Your task to perform on an android device: What is the news today? Image 0: 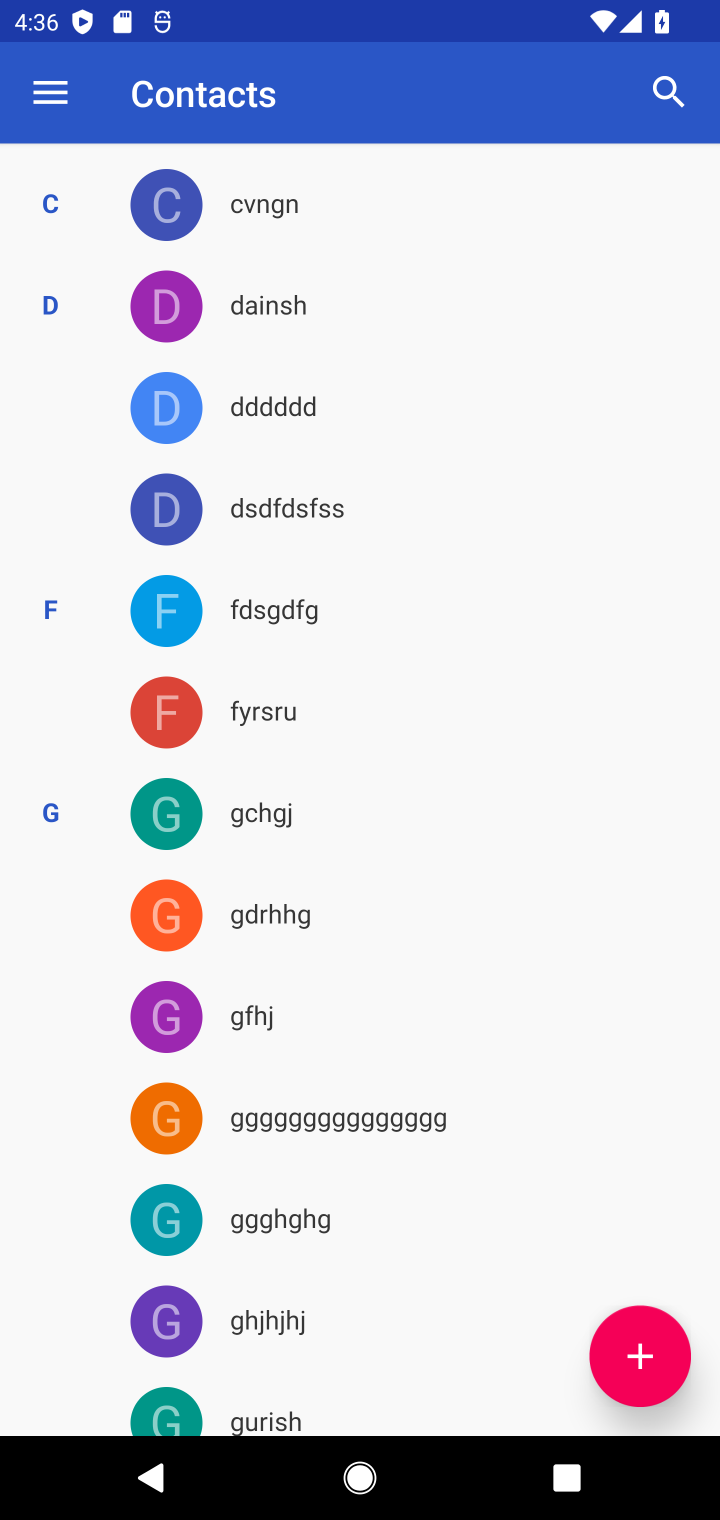
Step 0: press home button
Your task to perform on an android device: What is the news today? Image 1: 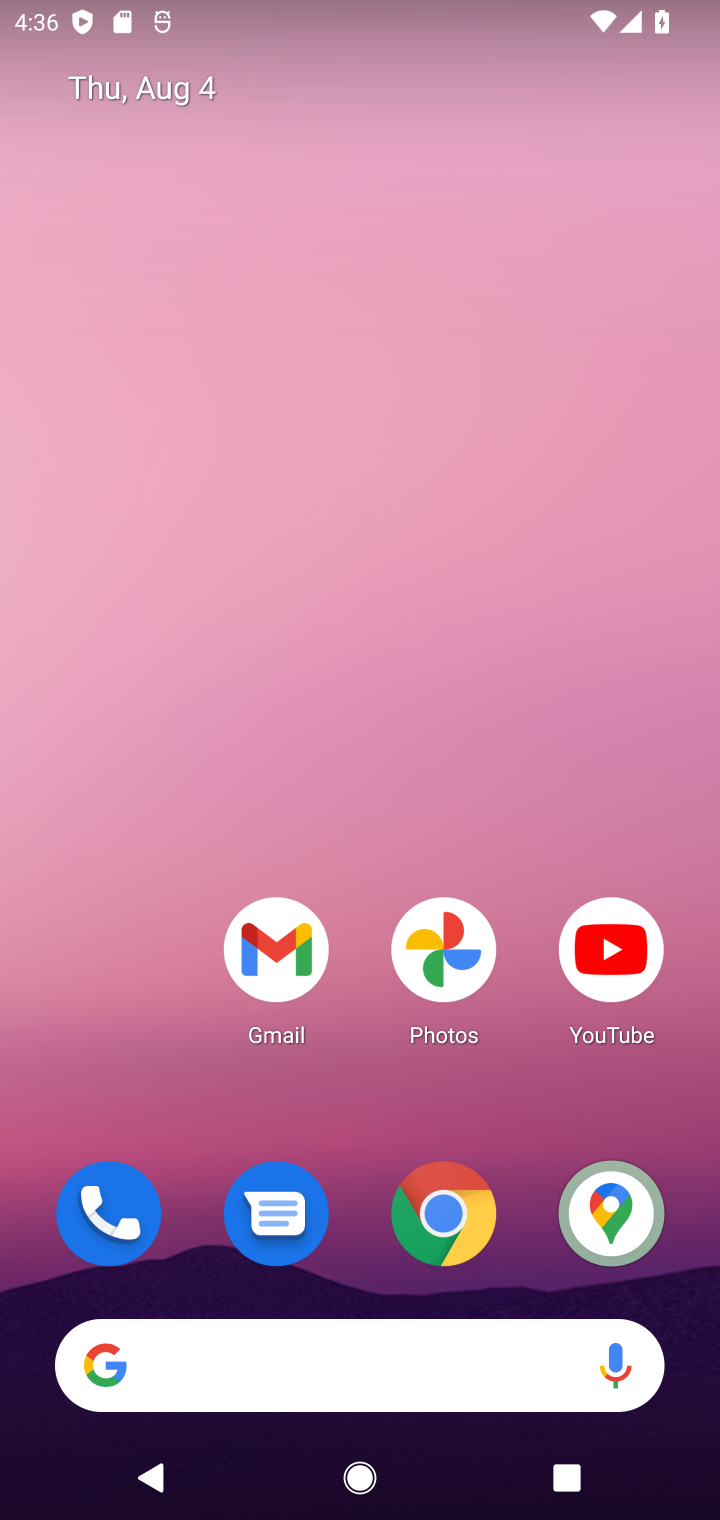
Step 1: drag from (306, 1374) to (371, 299)
Your task to perform on an android device: What is the news today? Image 2: 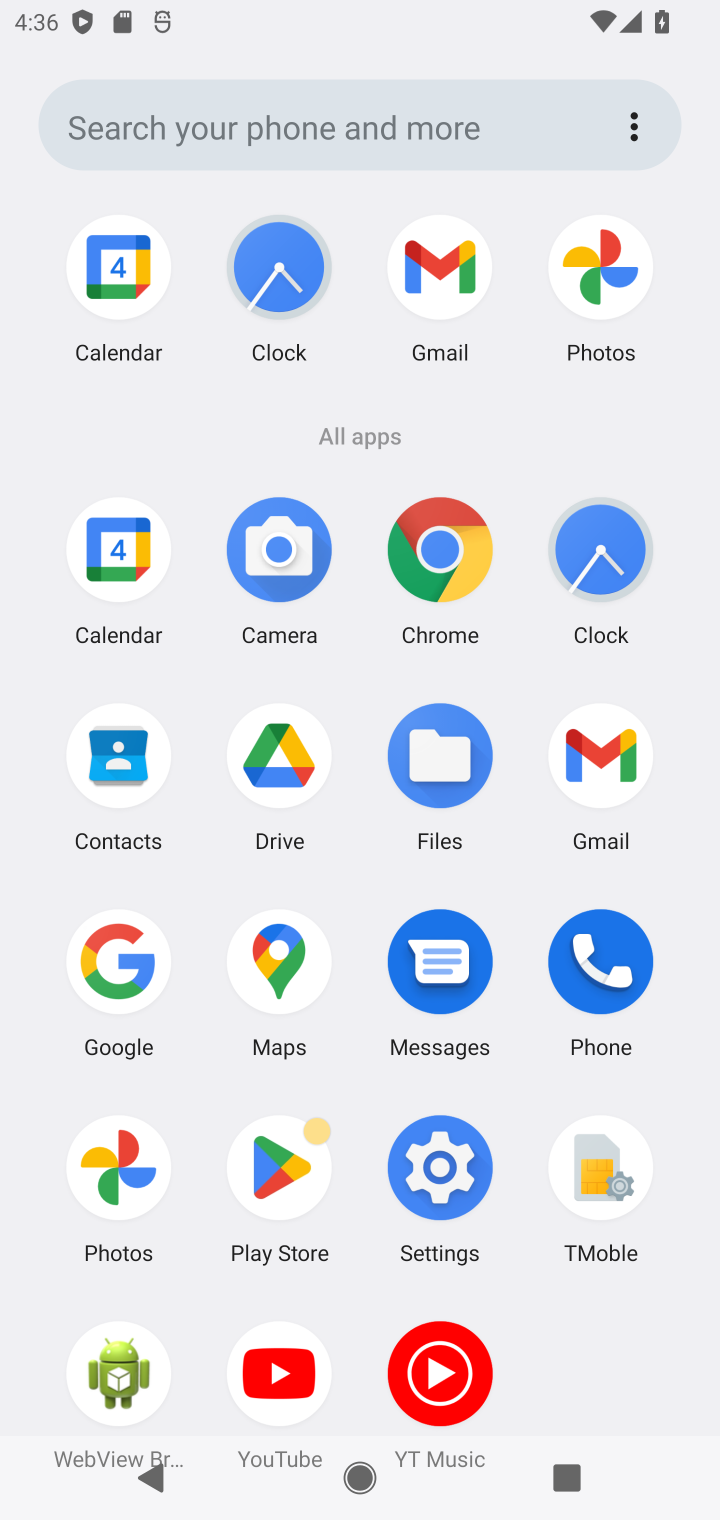
Step 2: click (105, 967)
Your task to perform on an android device: What is the news today? Image 3: 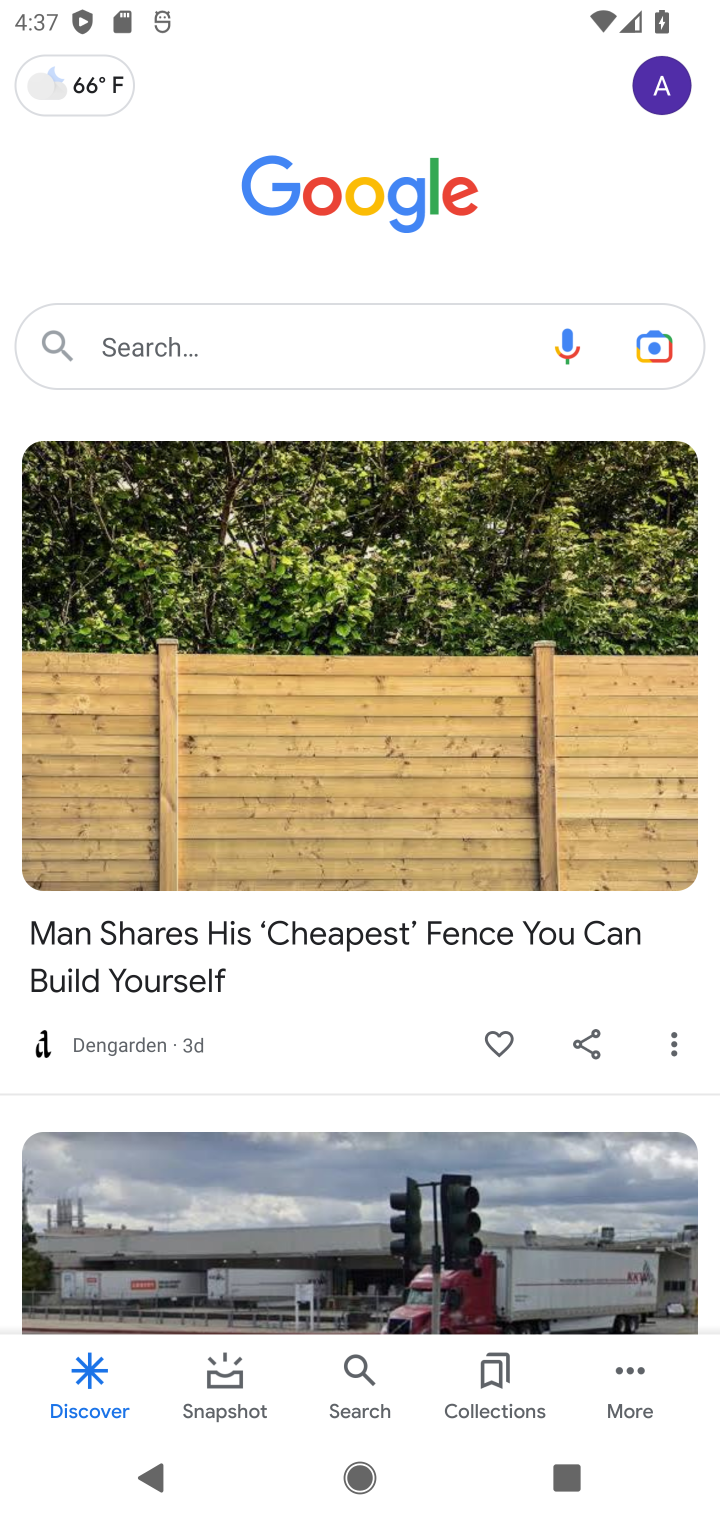
Step 3: click (256, 334)
Your task to perform on an android device: What is the news today? Image 4: 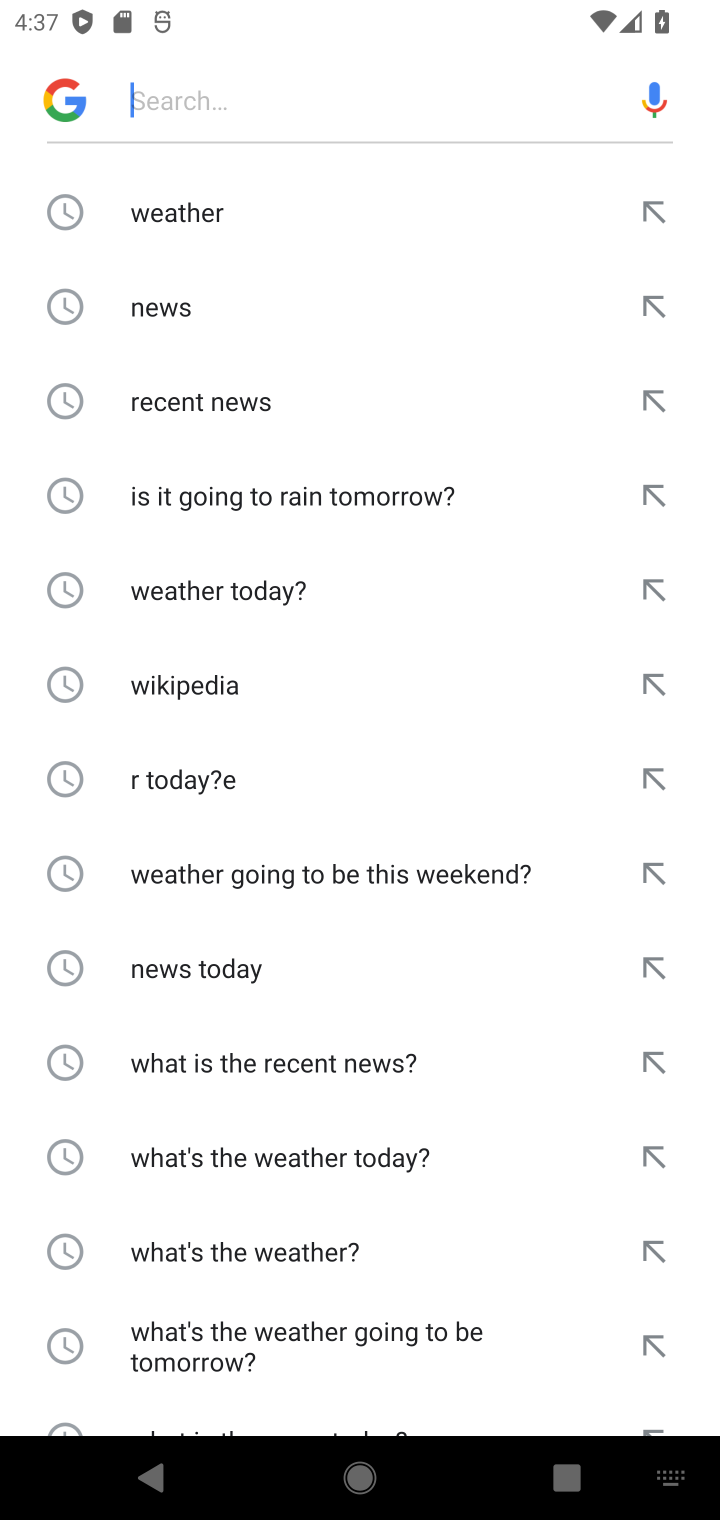
Step 4: type "news today"
Your task to perform on an android device: What is the news today? Image 5: 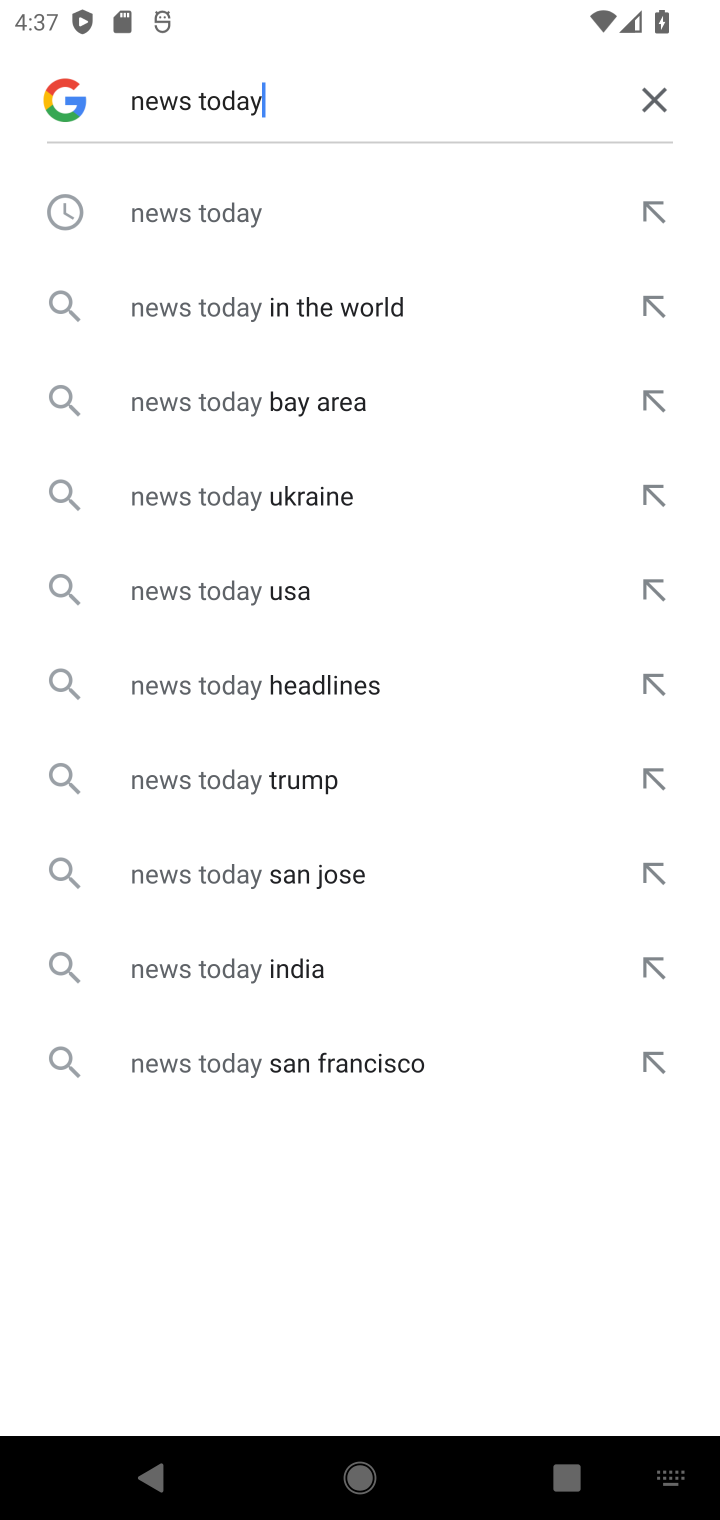
Step 5: click (255, 218)
Your task to perform on an android device: What is the news today? Image 6: 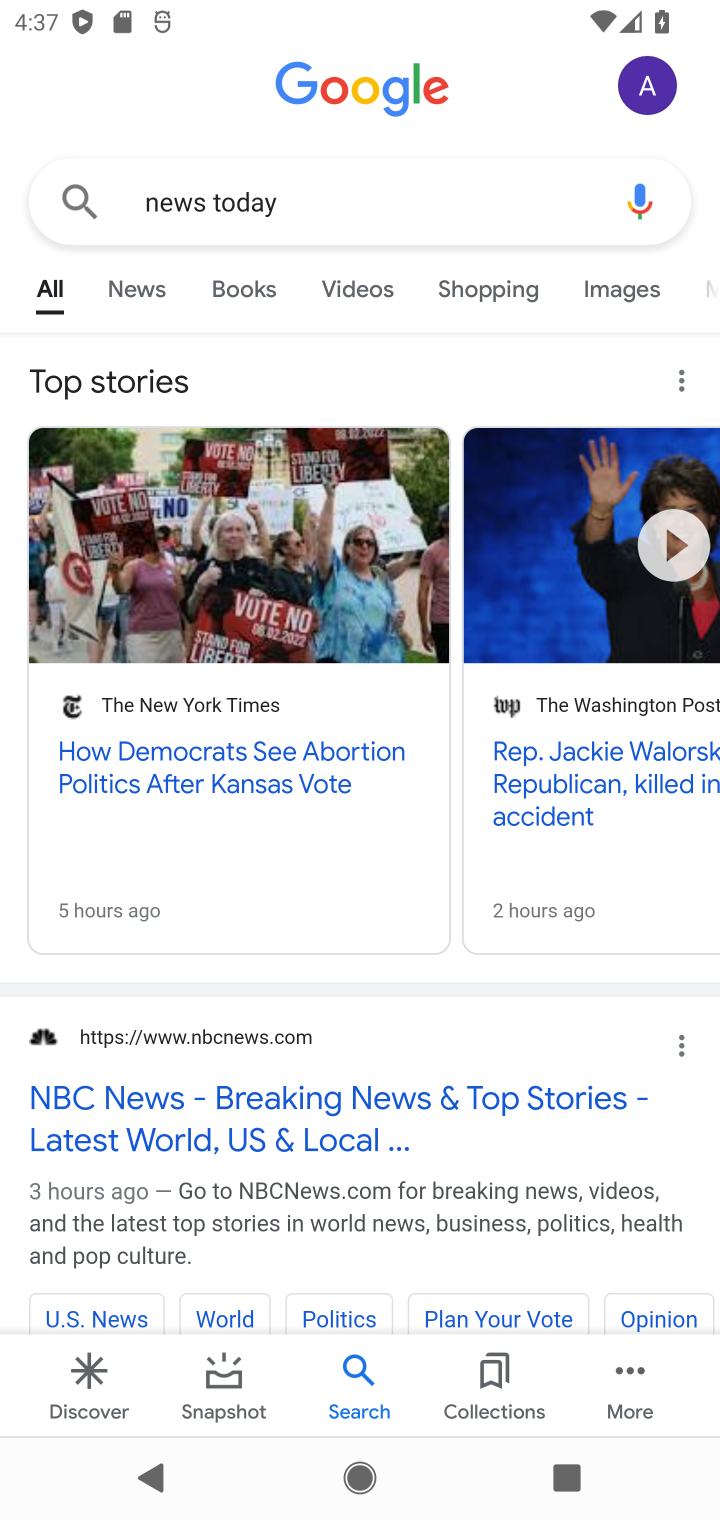
Step 6: click (242, 797)
Your task to perform on an android device: What is the news today? Image 7: 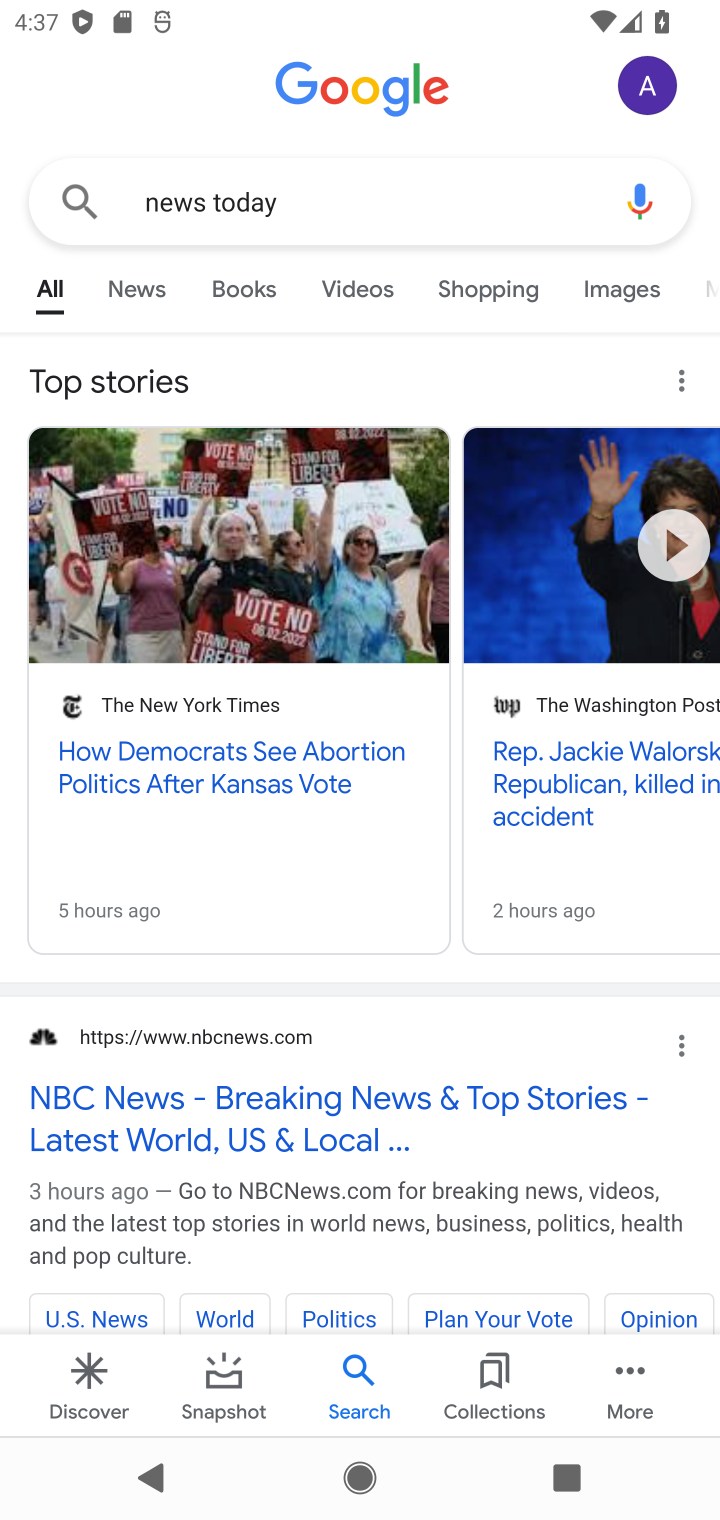
Step 7: click (262, 775)
Your task to perform on an android device: What is the news today? Image 8: 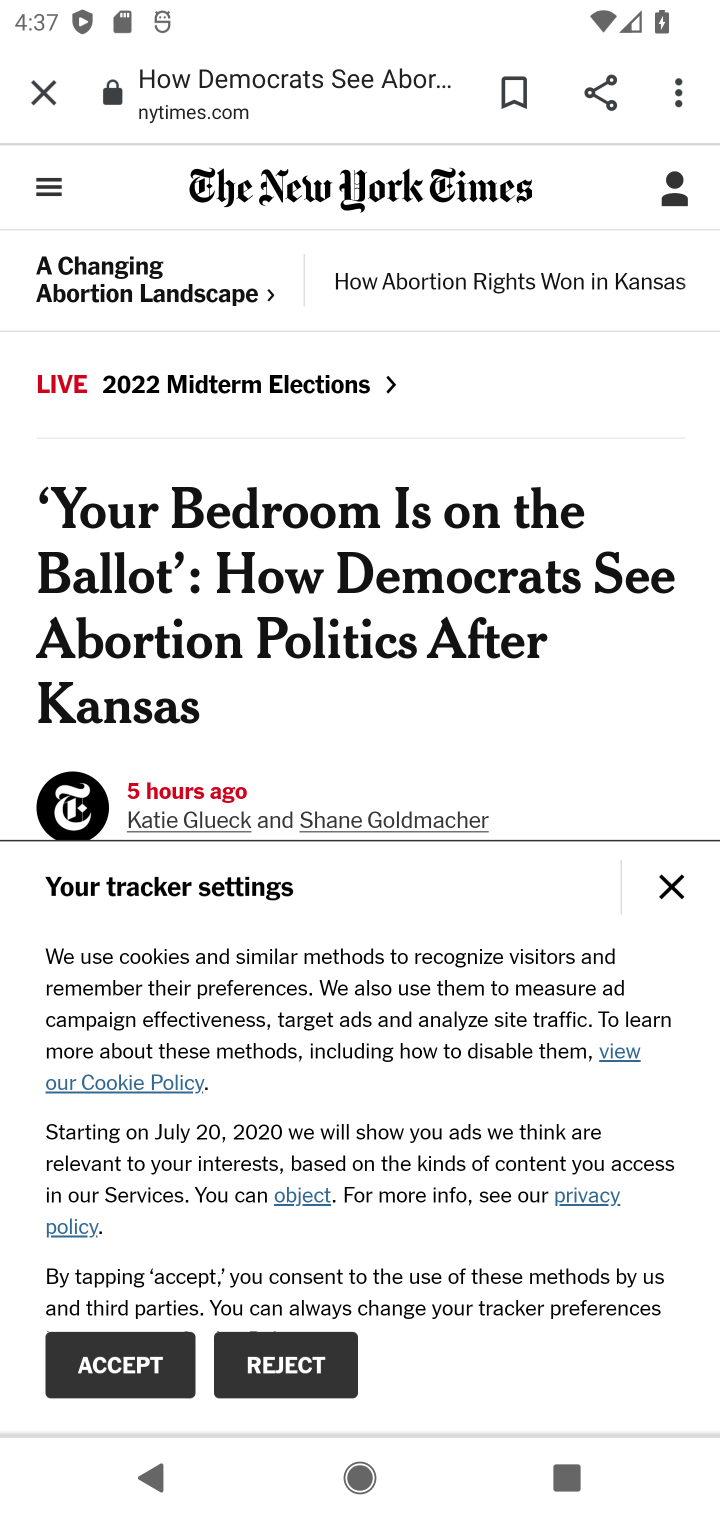
Step 8: task complete